Your task to perform on an android device: Open Wikipedia Image 0: 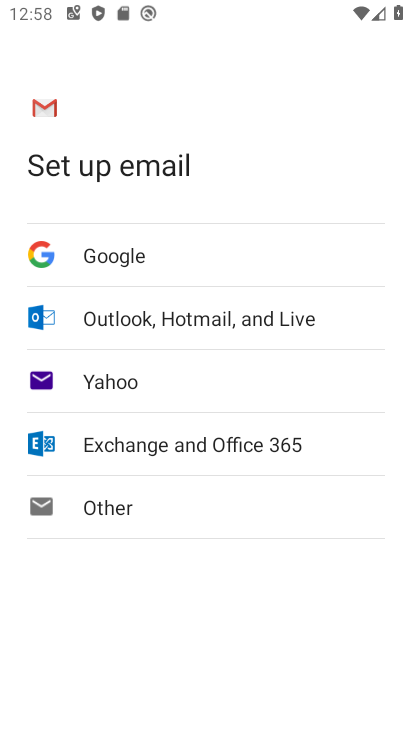
Step 0: press home button
Your task to perform on an android device: Open Wikipedia Image 1: 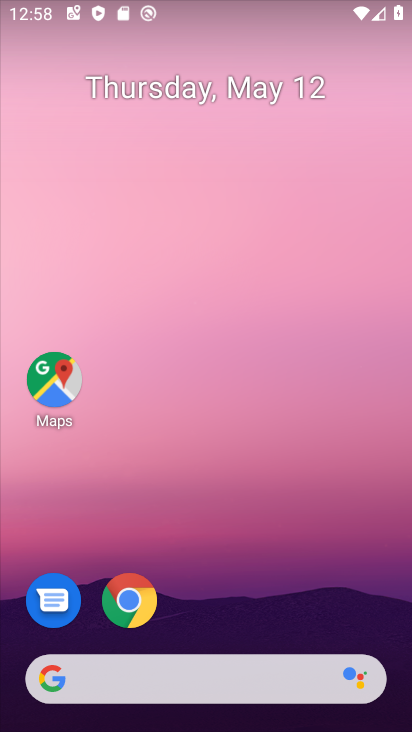
Step 1: click (135, 606)
Your task to perform on an android device: Open Wikipedia Image 2: 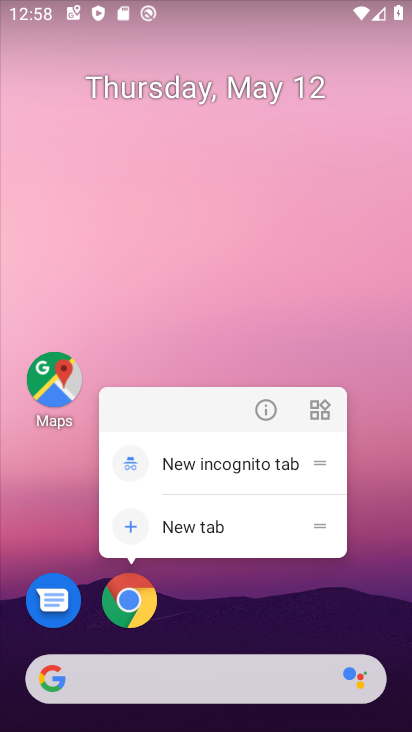
Step 2: click (135, 606)
Your task to perform on an android device: Open Wikipedia Image 3: 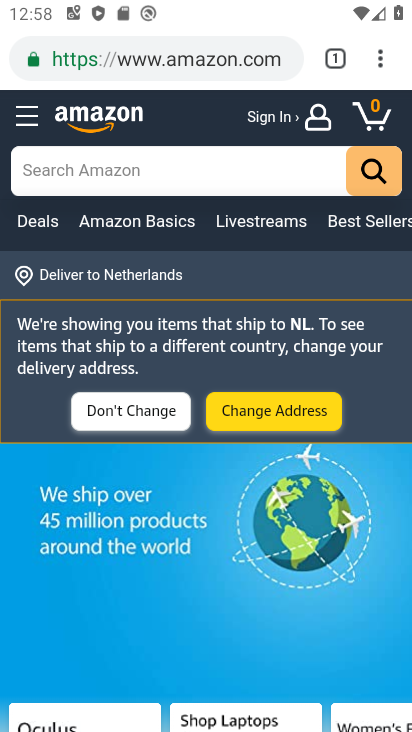
Step 3: drag from (384, 73) to (5, 405)
Your task to perform on an android device: Open Wikipedia Image 4: 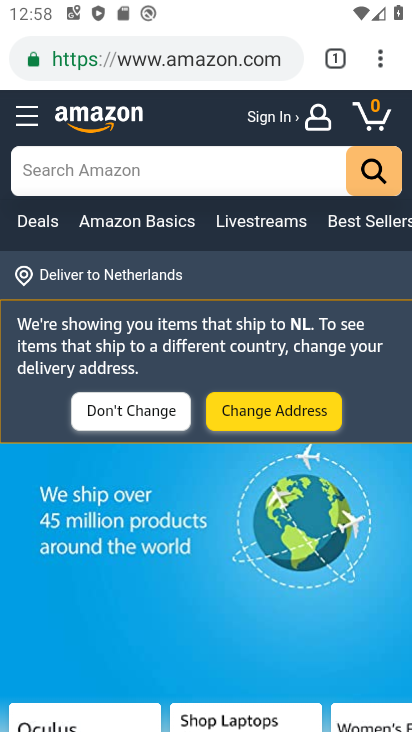
Step 4: click (185, 176)
Your task to perform on an android device: Open Wikipedia Image 5: 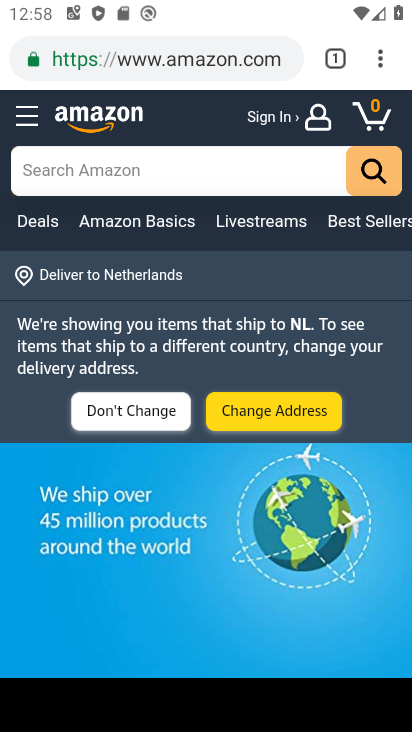
Step 5: drag from (372, 59) to (309, 181)
Your task to perform on an android device: Open Wikipedia Image 6: 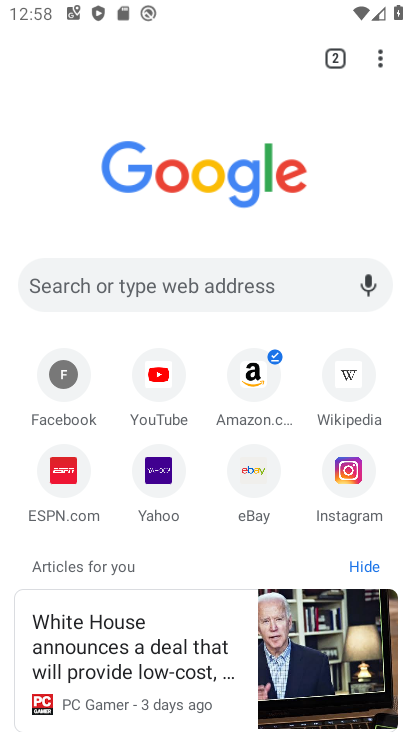
Step 6: click (331, 359)
Your task to perform on an android device: Open Wikipedia Image 7: 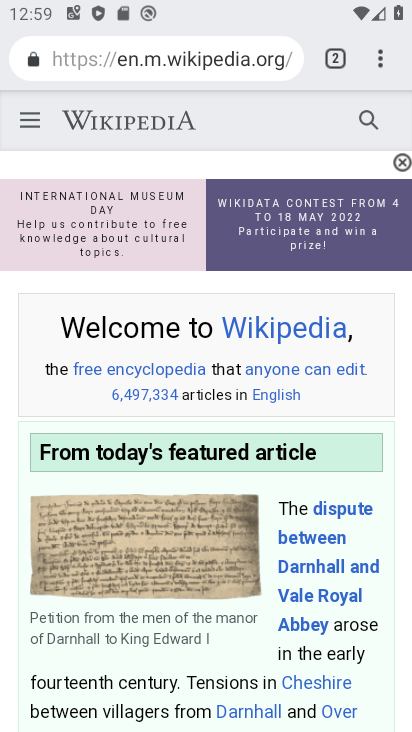
Step 7: task complete